Your task to perform on an android device: Open internet settings Image 0: 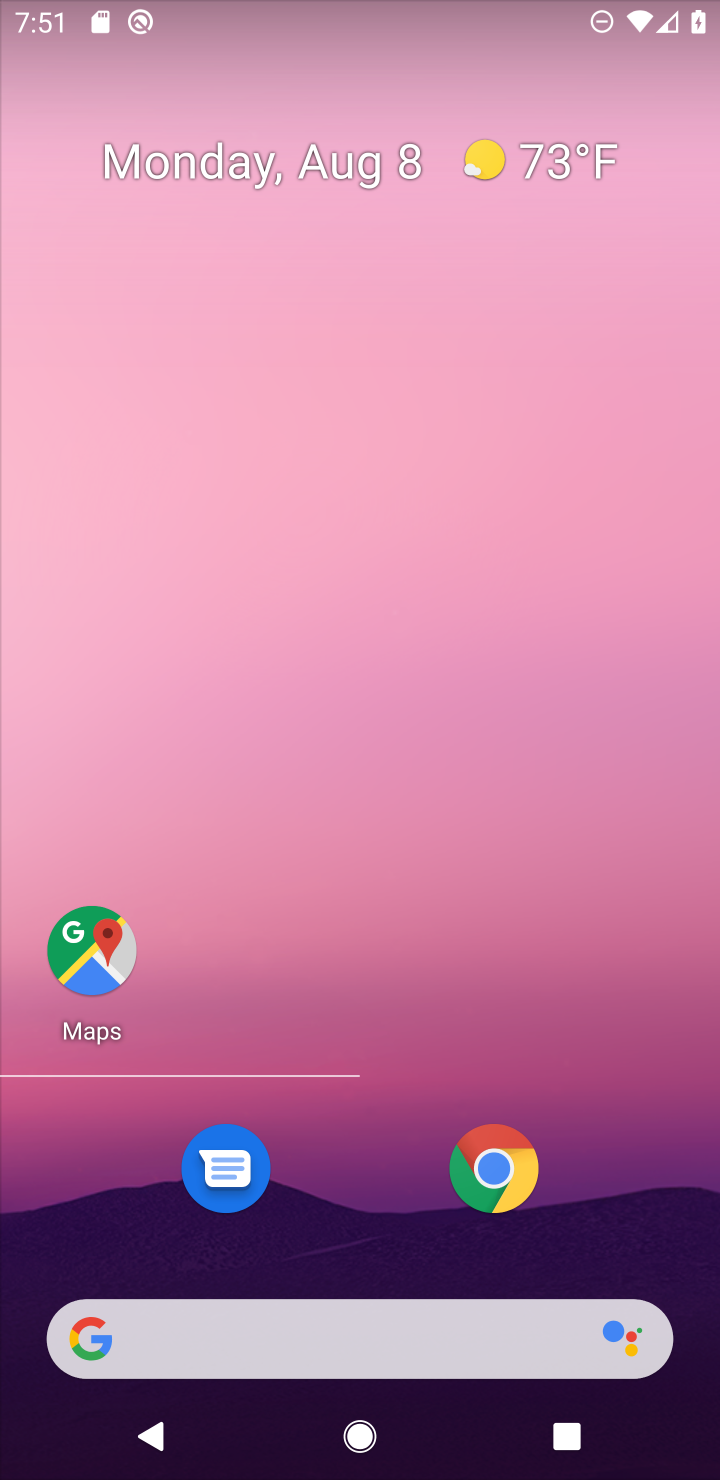
Step 0: drag from (357, 1315) to (605, 141)
Your task to perform on an android device: Open internet settings Image 1: 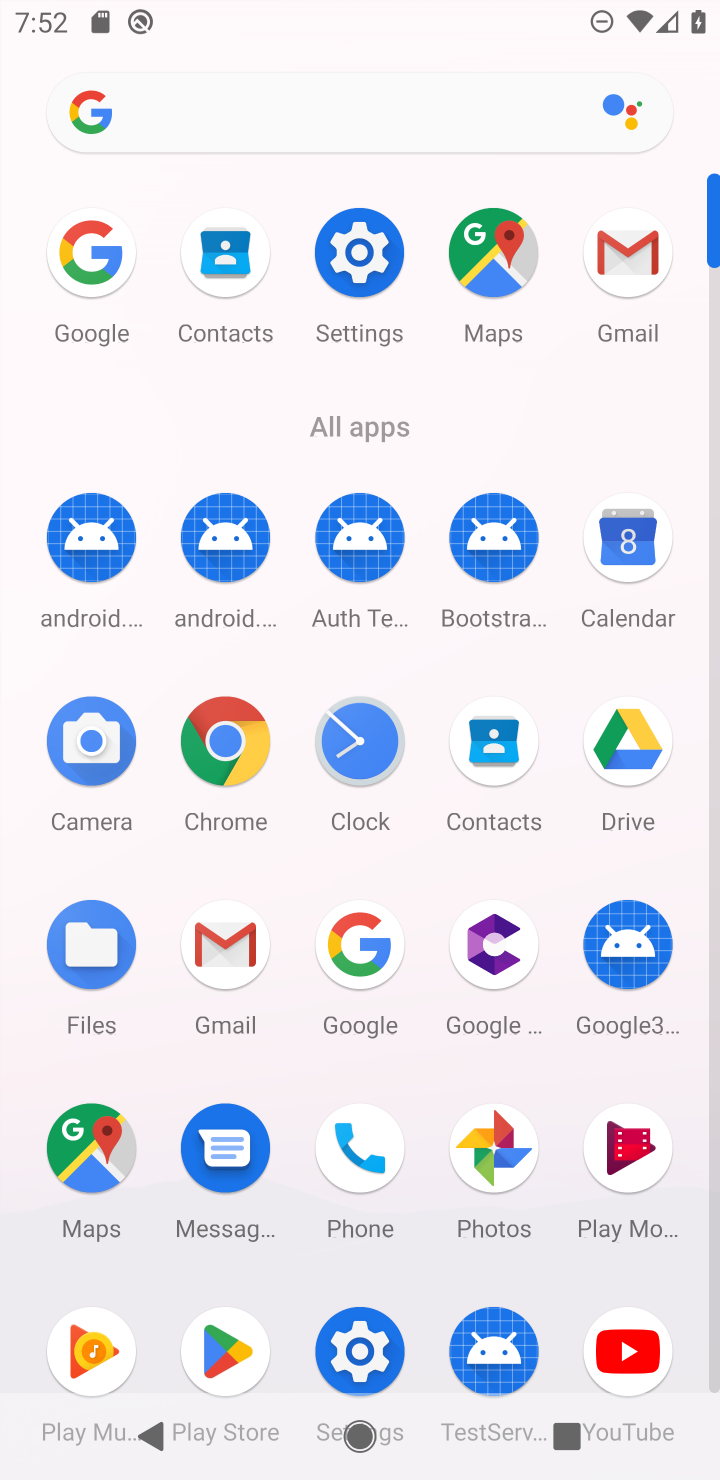
Step 1: click (351, 277)
Your task to perform on an android device: Open internet settings Image 2: 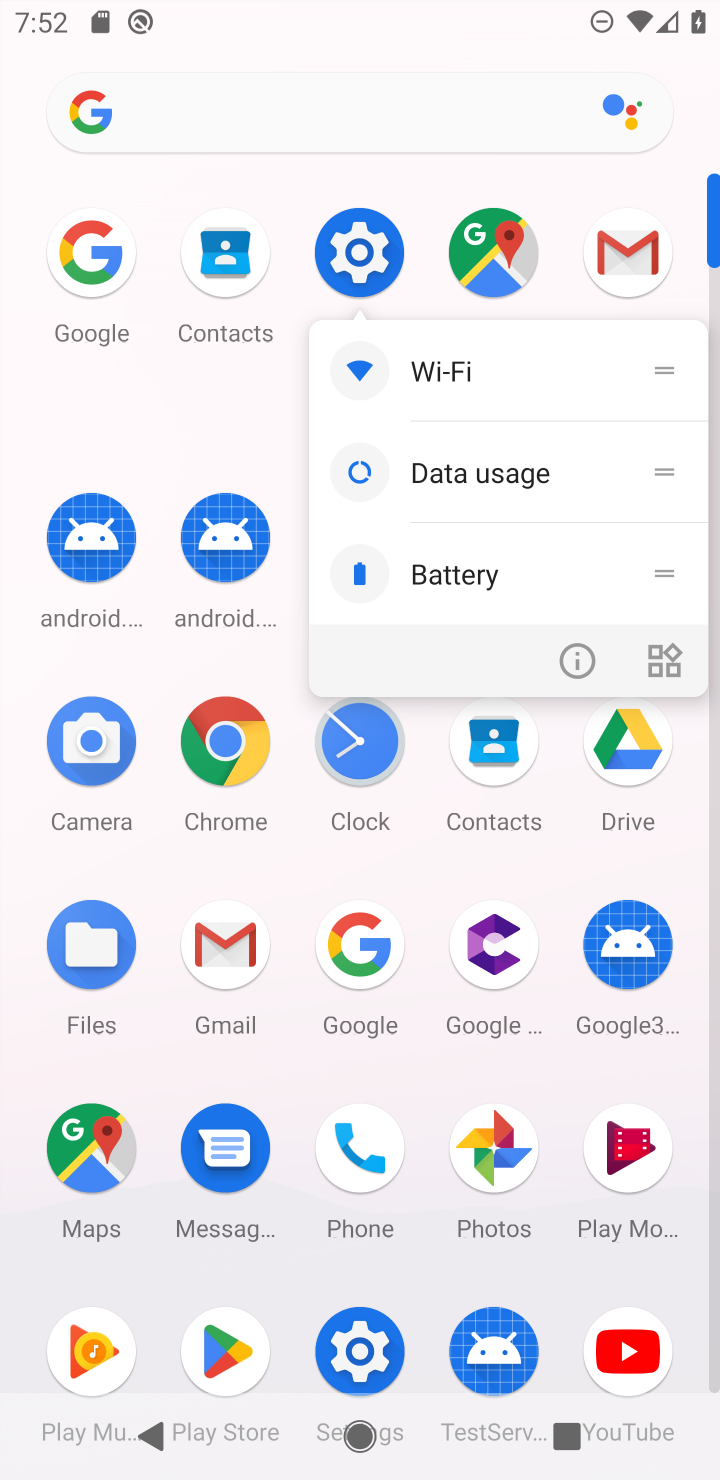
Step 2: click (376, 245)
Your task to perform on an android device: Open internet settings Image 3: 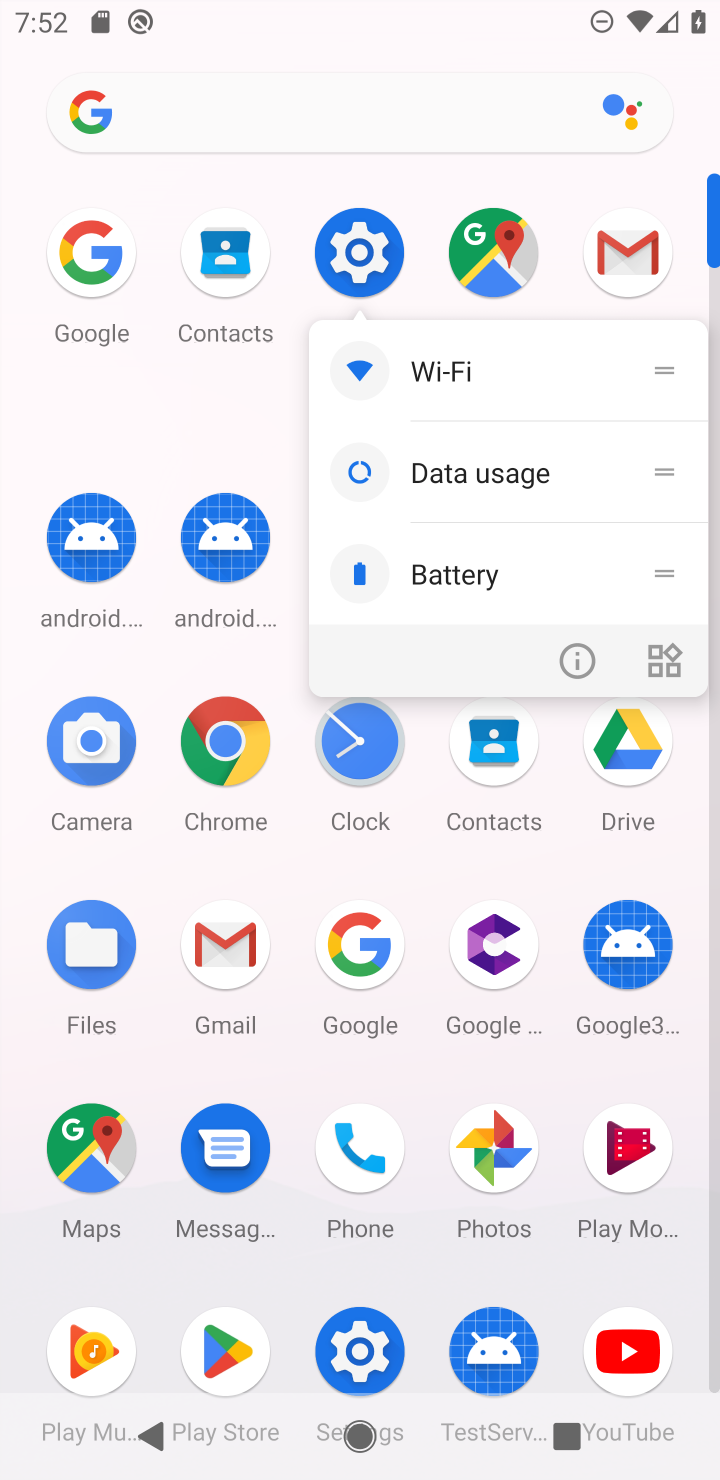
Step 3: click (362, 250)
Your task to perform on an android device: Open internet settings Image 4: 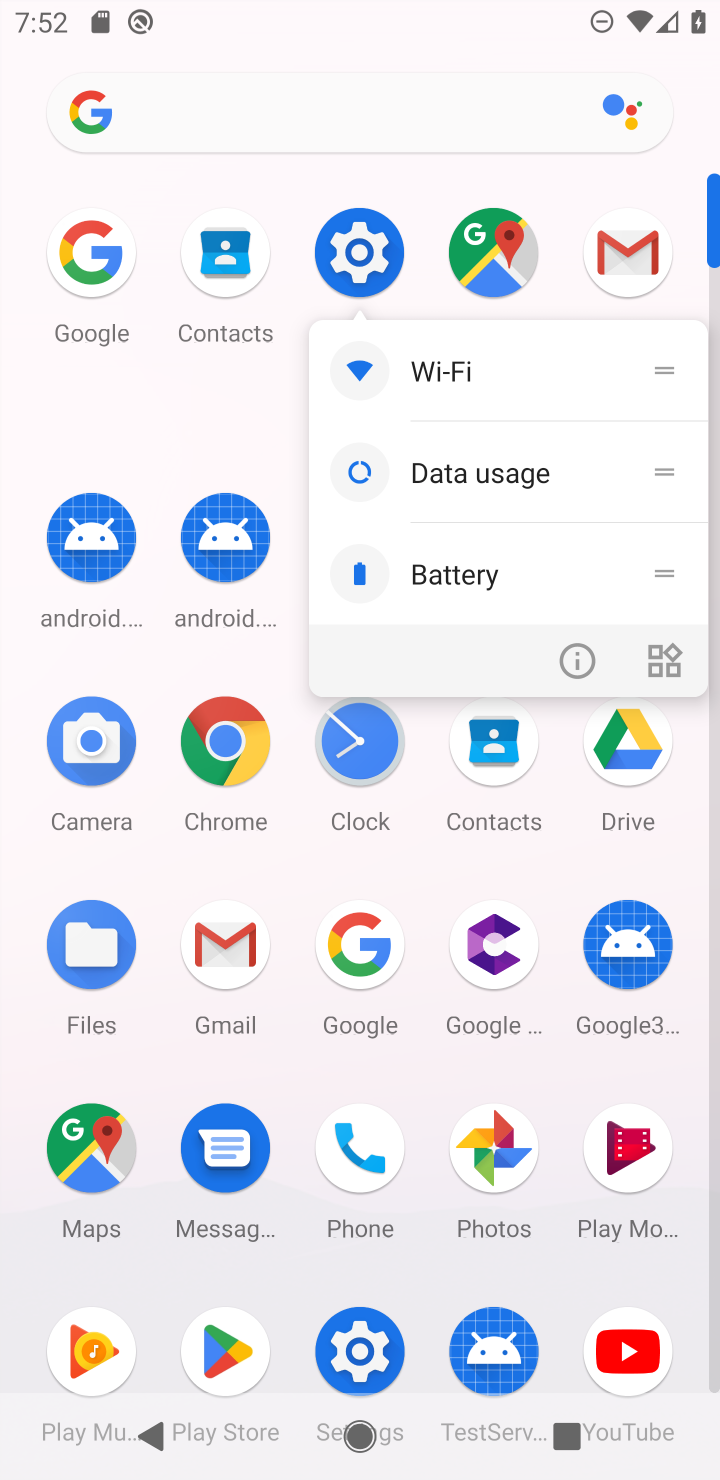
Step 4: click (362, 249)
Your task to perform on an android device: Open internet settings Image 5: 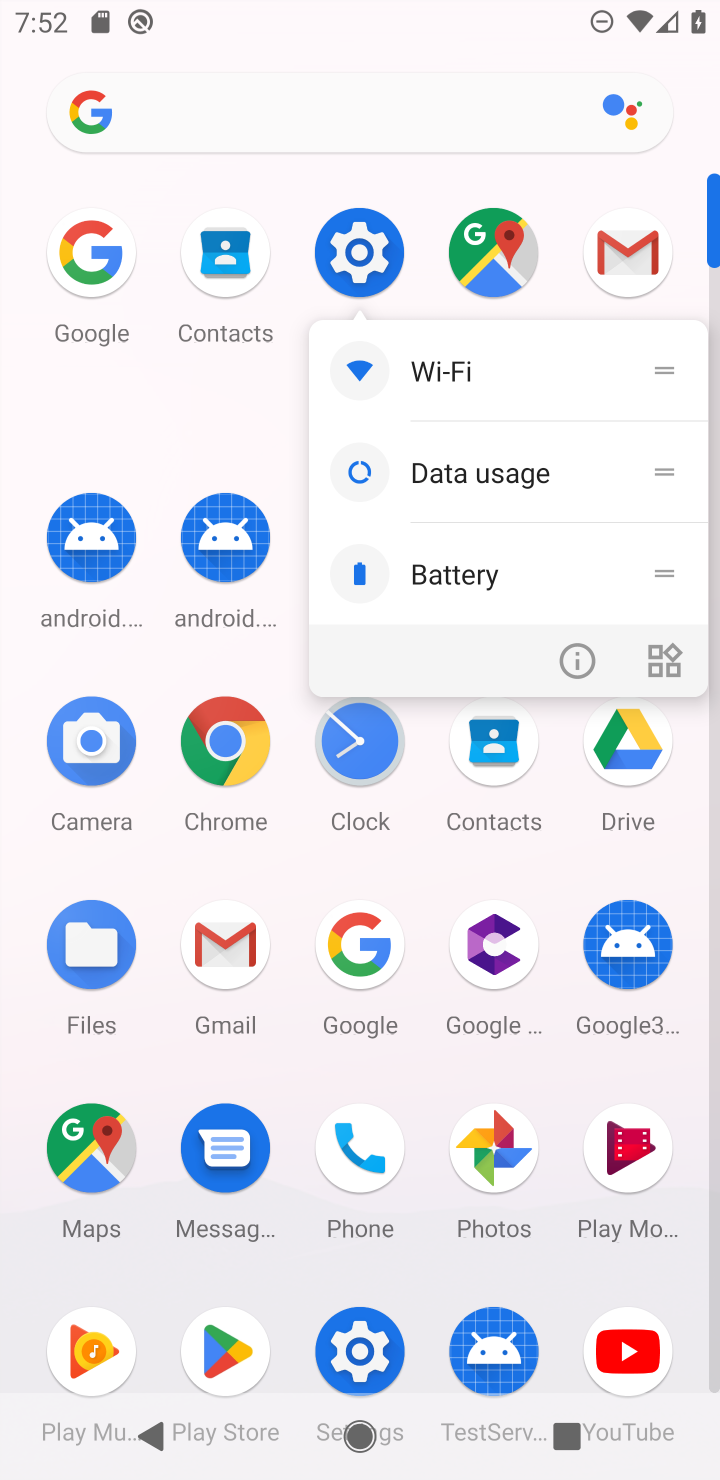
Step 5: click (362, 239)
Your task to perform on an android device: Open internet settings Image 6: 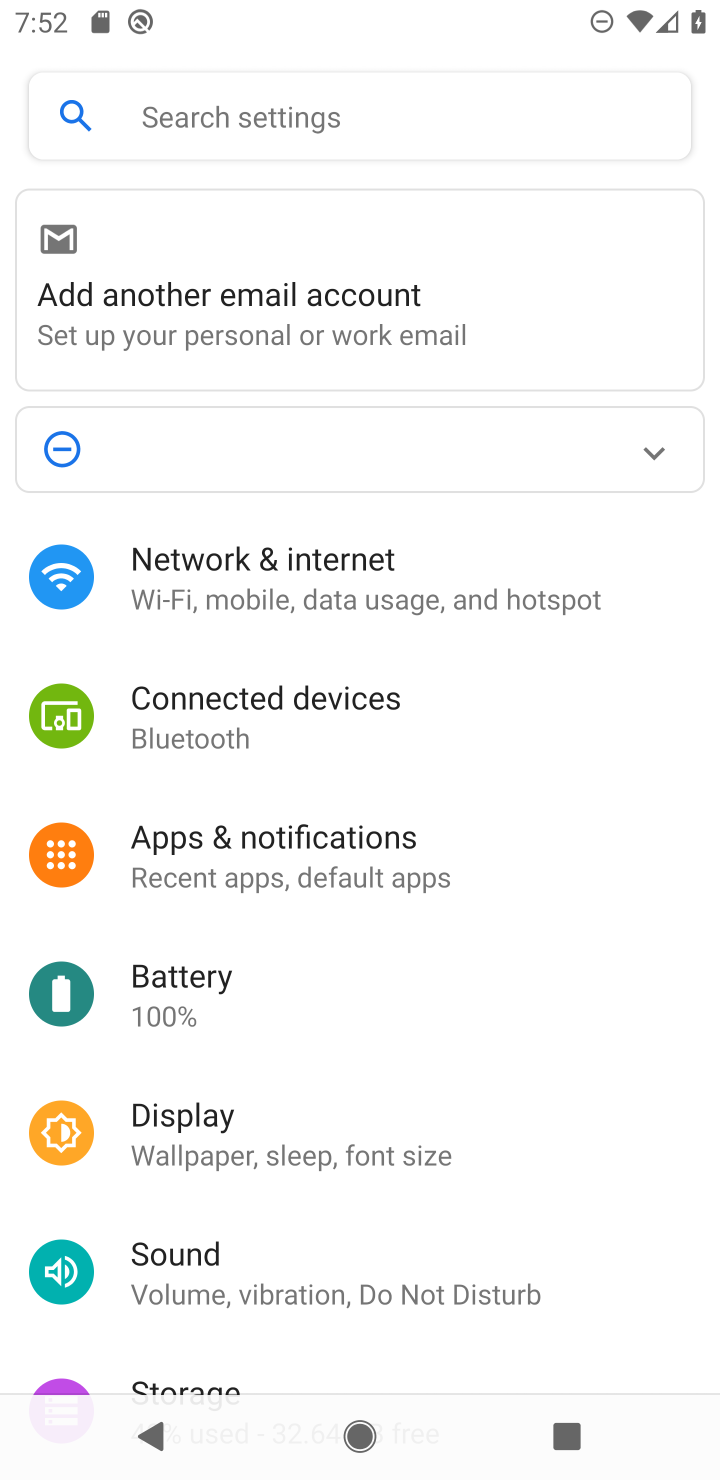
Step 6: click (285, 559)
Your task to perform on an android device: Open internet settings Image 7: 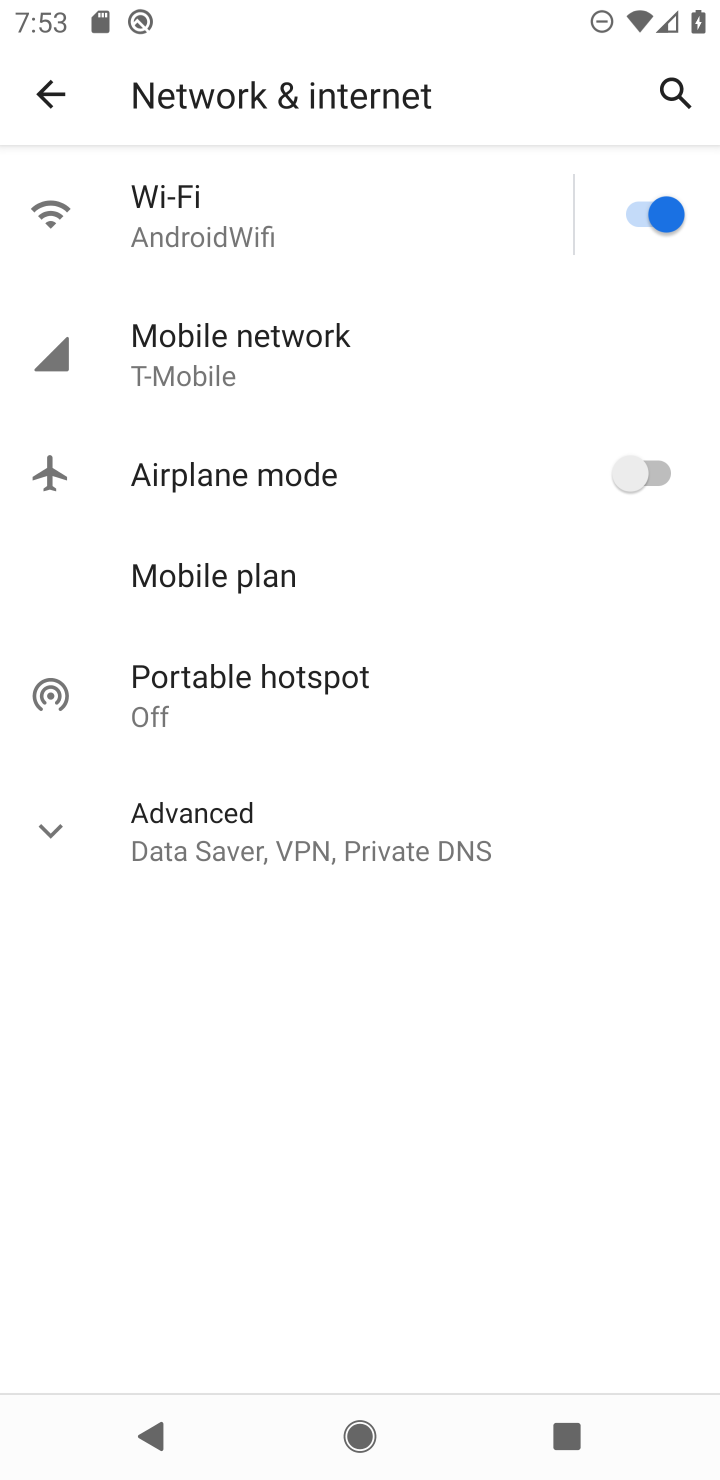
Step 7: task complete